Your task to perform on an android device: Go to wifi settings Image 0: 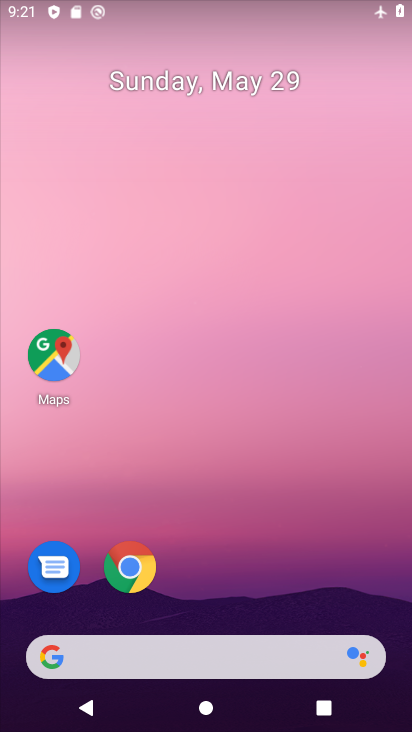
Step 0: drag from (349, 587) to (349, 132)
Your task to perform on an android device: Go to wifi settings Image 1: 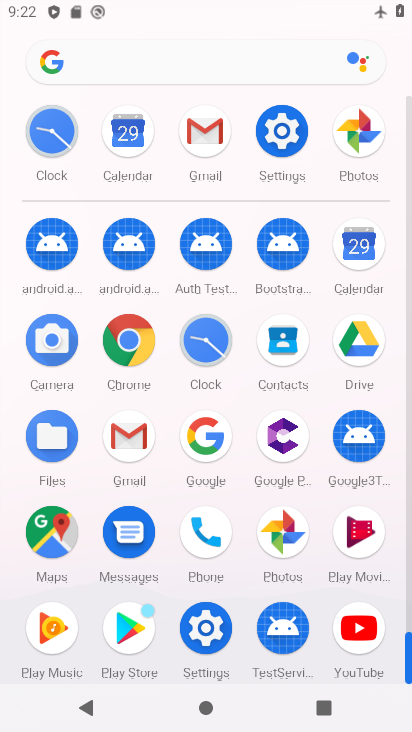
Step 1: click (205, 626)
Your task to perform on an android device: Go to wifi settings Image 2: 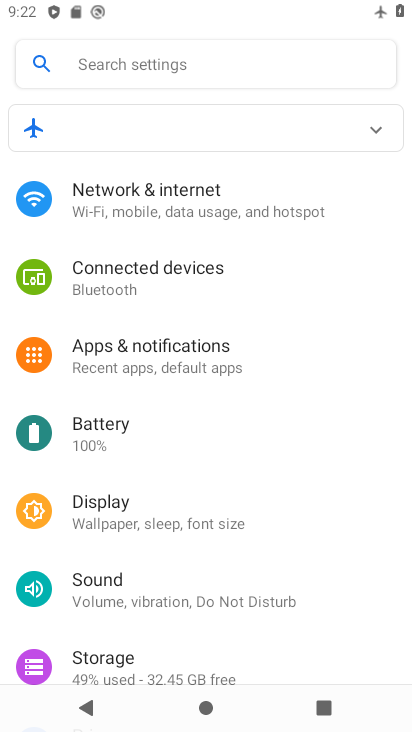
Step 2: click (146, 192)
Your task to perform on an android device: Go to wifi settings Image 3: 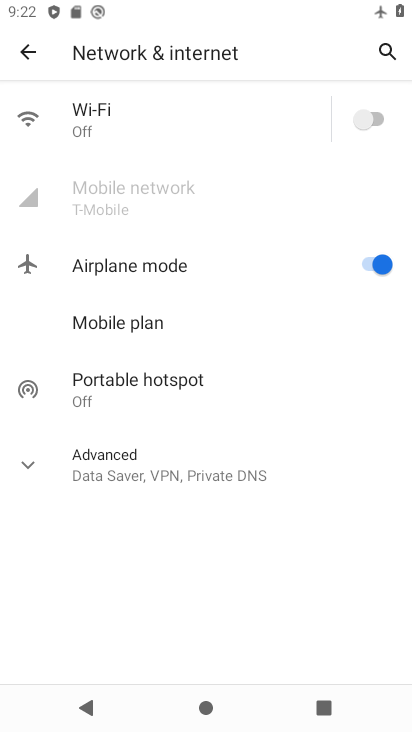
Step 3: click (71, 119)
Your task to perform on an android device: Go to wifi settings Image 4: 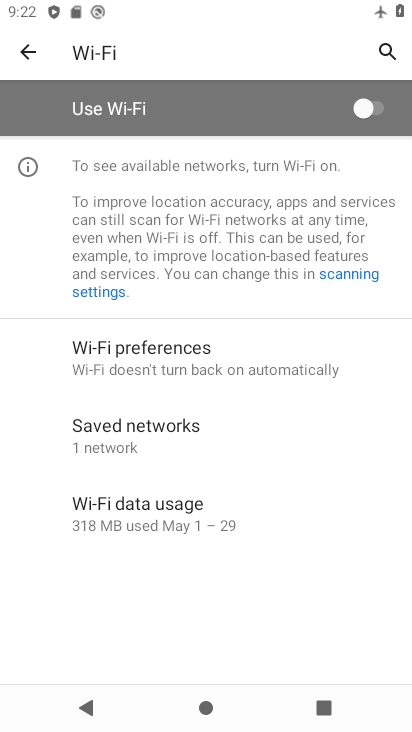
Step 4: task complete